Your task to perform on an android device: Open Chrome and go to settings Image 0: 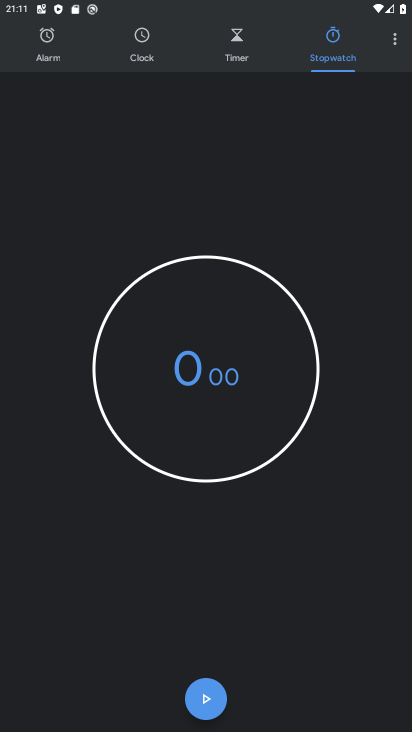
Step 0: press back button
Your task to perform on an android device: Open Chrome and go to settings Image 1: 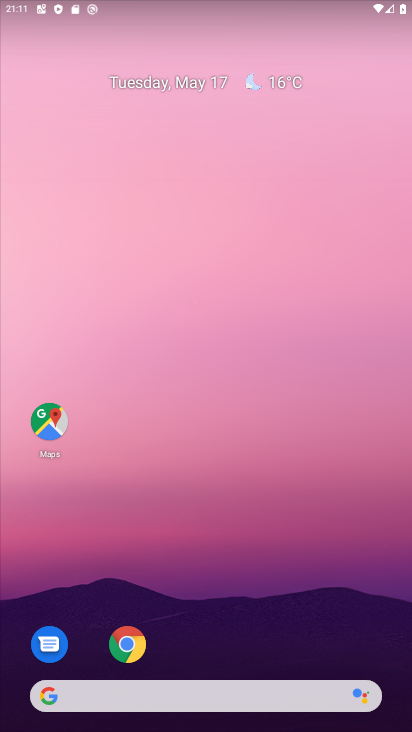
Step 1: click (139, 633)
Your task to perform on an android device: Open Chrome and go to settings Image 2: 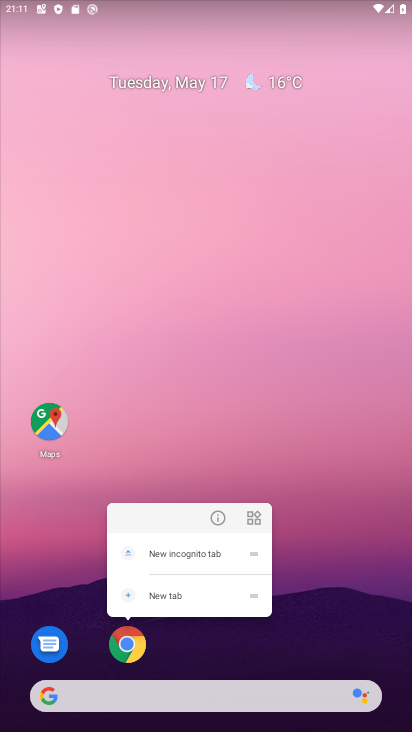
Step 2: click (132, 643)
Your task to perform on an android device: Open Chrome and go to settings Image 3: 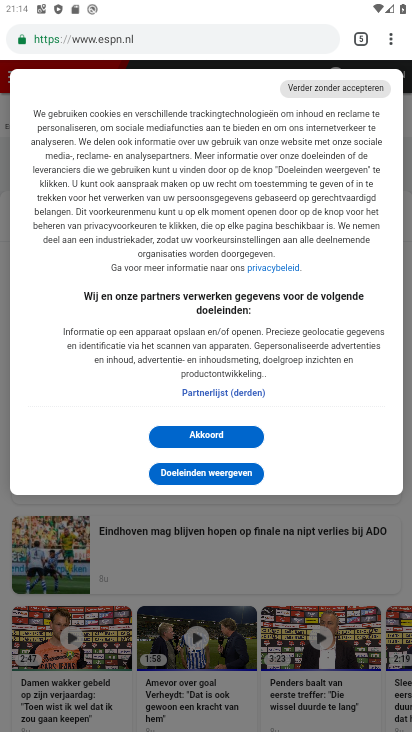
Step 3: task complete